Your task to perform on an android device: turn on priority inbox in the gmail app Image 0: 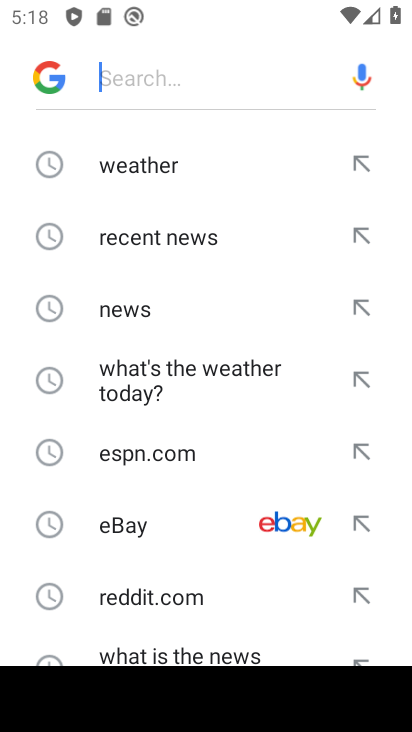
Step 0: press home button
Your task to perform on an android device: turn on priority inbox in the gmail app Image 1: 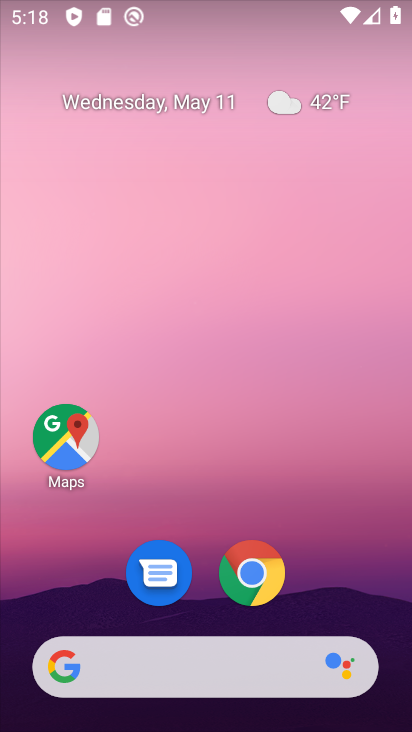
Step 1: drag from (282, 502) to (268, 153)
Your task to perform on an android device: turn on priority inbox in the gmail app Image 2: 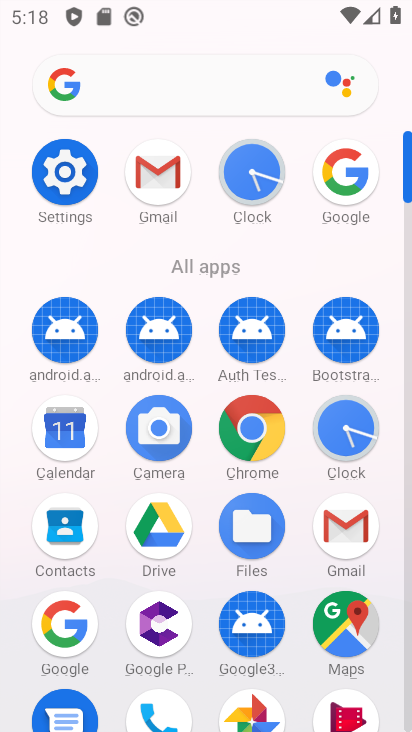
Step 2: click (152, 204)
Your task to perform on an android device: turn on priority inbox in the gmail app Image 3: 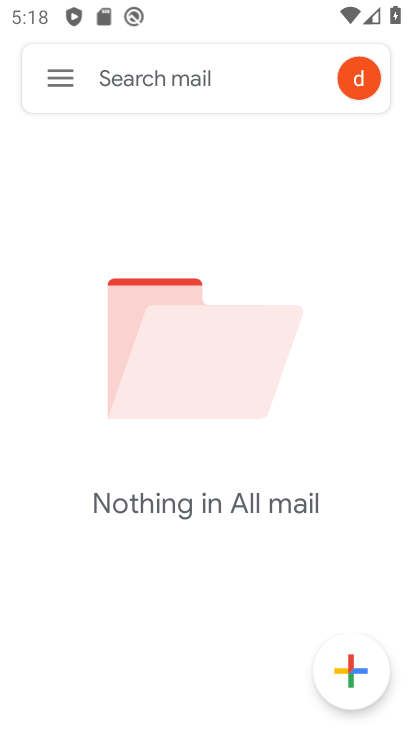
Step 3: click (56, 73)
Your task to perform on an android device: turn on priority inbox in the gmail app Image 4: 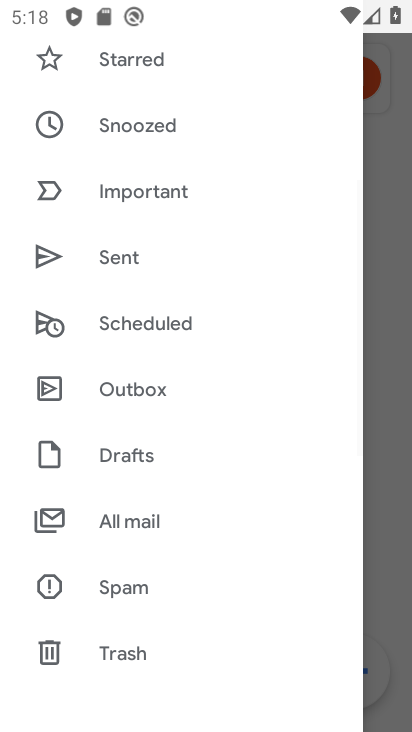
Step 4: drag from (148, 639) to (181, 300)
Your task to perform on an android device: turn on priority inbox in the gmail app Image 5: 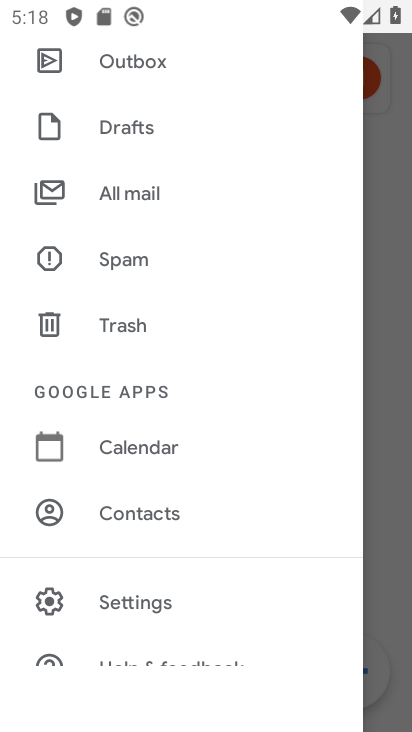
Step 5: click (141, 604)
Your task to perform on an android device: turn on priority inbox in the gmail app Image 6: 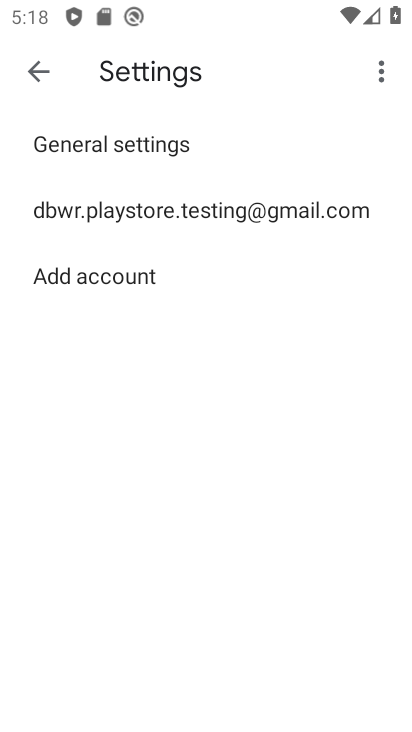
Step 6: click (190, 212)
Your task to perform on an android device: turn on priority inbox in the gmail app Image 7: 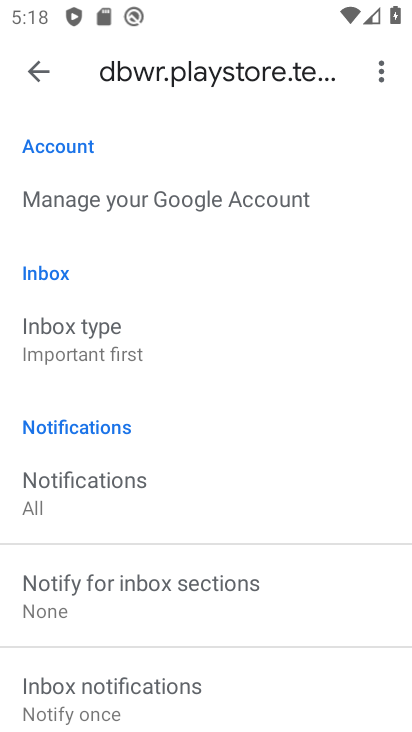
Step 7: drag from (215, 574) to (220, 291)
Your task to perform on an android device: turn on priority inbox in the gmail app Image 8: 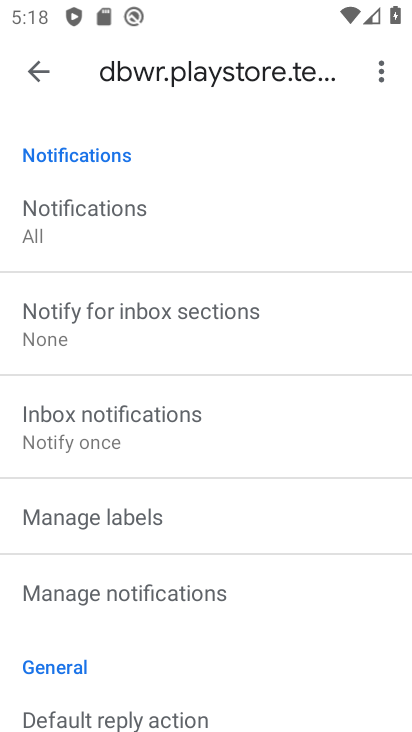
Step 8: drag from (203, 244) to (195, 608)
Your task to perform on an android device: turn on priority inbox in the gmail app Image 9: 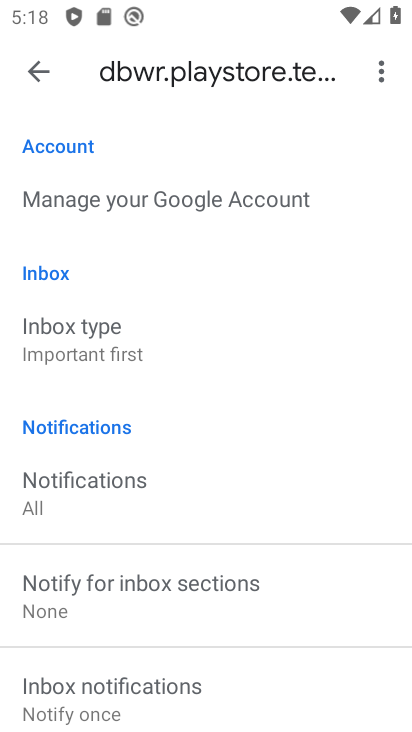
Step 9: click (96, 353)
Your task to perform on an android device: turn on priority inbox in the gmail app Image 10: 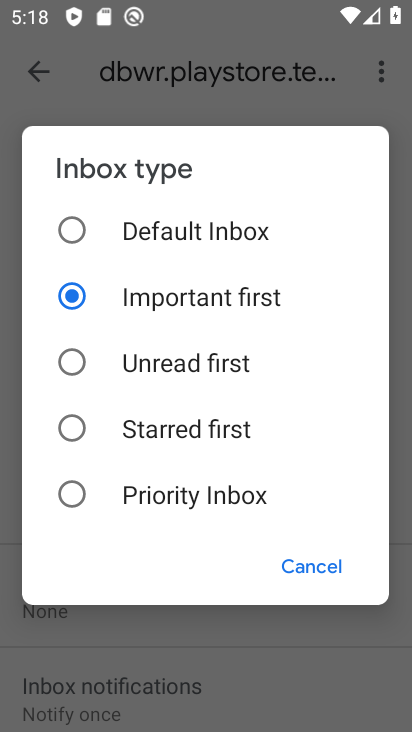
Step 10: click (73, 500)
Your task to perform on an android device: turn on priority inbox in the gmail app Image 11: 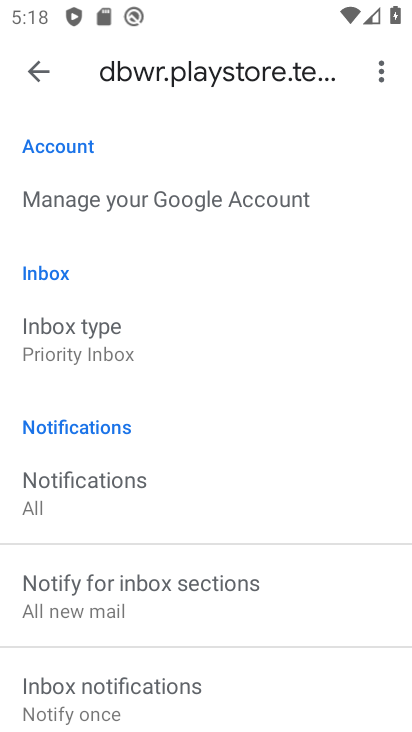
Step 11: task complete